Your task to perform on an android device: What's the latest news in space exploration? Image 0: 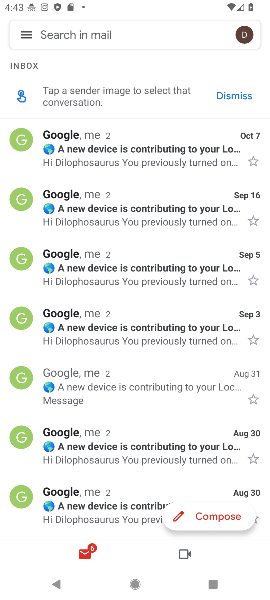
Step 0: press home button
Your task to perform on an android device: What's the latest news in space exploration? Image 1: 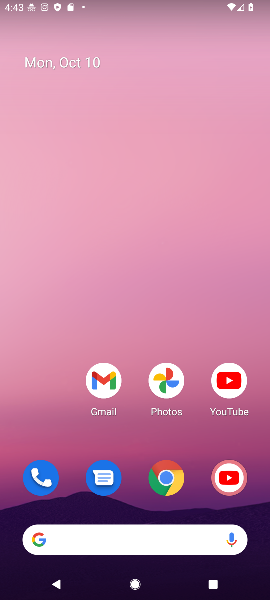
Step 1: click (158, 490)
Your task to perform on an android device: What's the latest news in space exploration? Image 2: 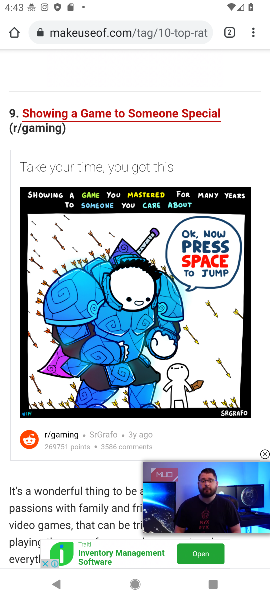
Step 2: click (48, 34)
Your task to perform on an android device: What's the latest news in space exploration? Image 3: 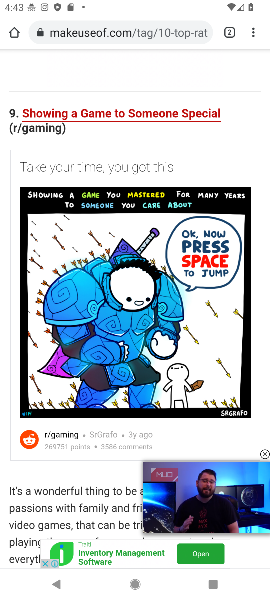
Step 3: click (117, 31)
Your task to perform on an android device: What's the latest news in space exploration? Image 4: 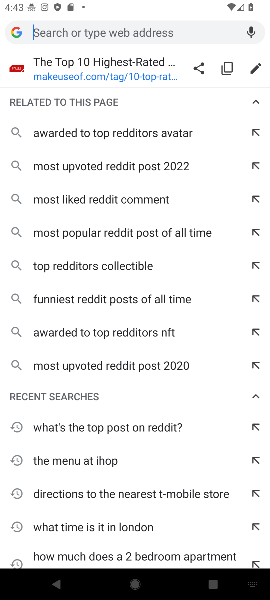
Step 4: type "What's the latest news in space exploration?"
Your task to perform on an android device: What's the latest news in space exploration? Image 5: 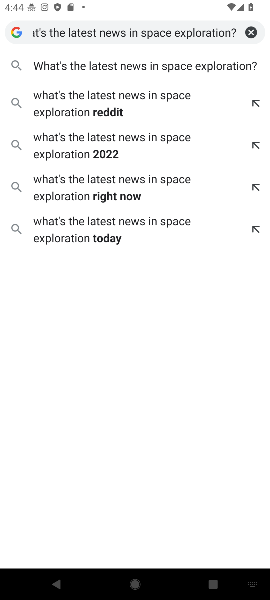
Step 5: click (176, 62)
Your task to perform on an android device: What's the latest news in space exploration? Image 6: 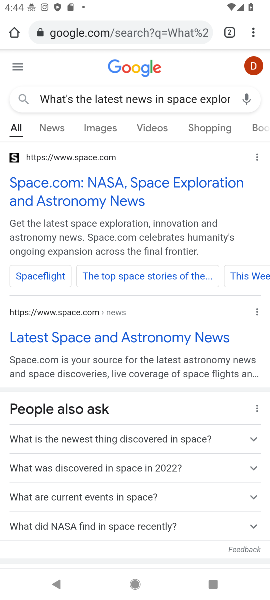
Step 6: click (122, 199)
Your task to perform on an android device: What's the latest news in space exploration? Image 7: 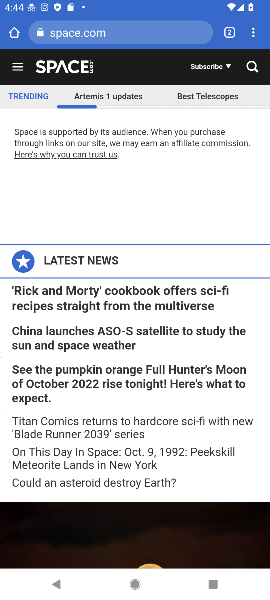
Step 7: drag from (139, 366) to (119, 108)
Your task to perform on an android device: What's the latest news in space exploration? Image 8: 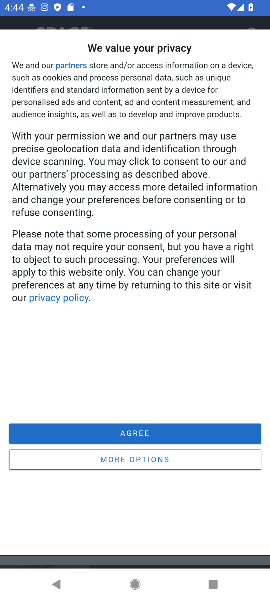
Step 8: click (201, 428)
Your task to perform on an android device: What's the latest news in space exploration? Image 9: 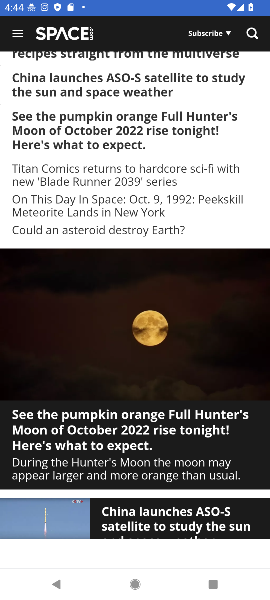
Step 9: task complete